Your task to perform on an android device: Open Wikipedia Image 0: 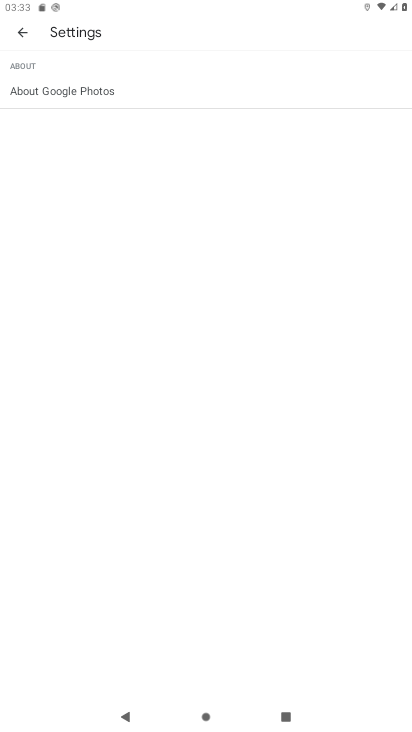
Step 0: press home button
Your task to perform on an android device: Open Wikipedia Image 1: 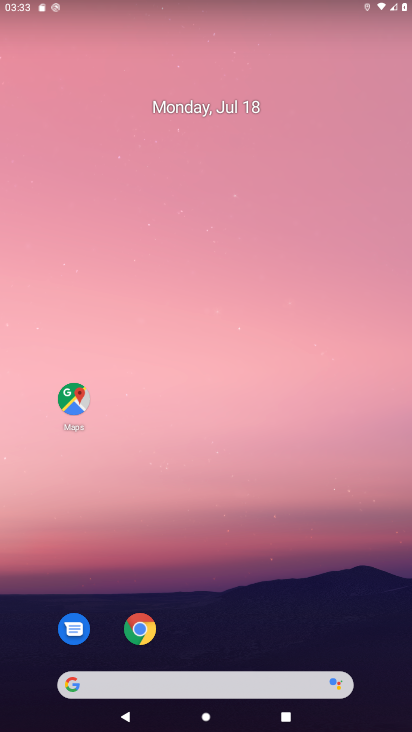
Step 1: drag from (346, 576) to (367, 118)
Your task to perform on an android device: Open Wikipedia Image 2: 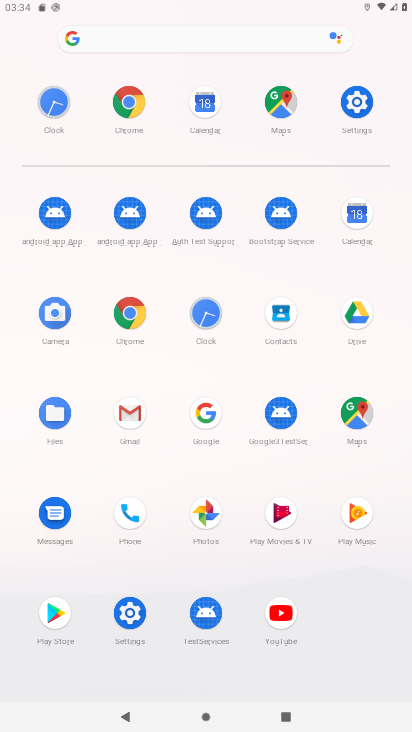
Step 2: click (137, 313)
Your task to perform on an android device: Open Wikipedia Image 3: 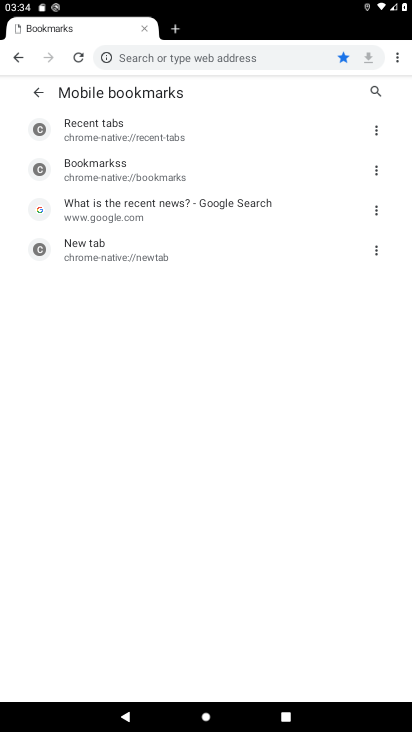
Step 3: click (229, 58)
Your task to perform on an android device: Open Wikipedia Image 4: 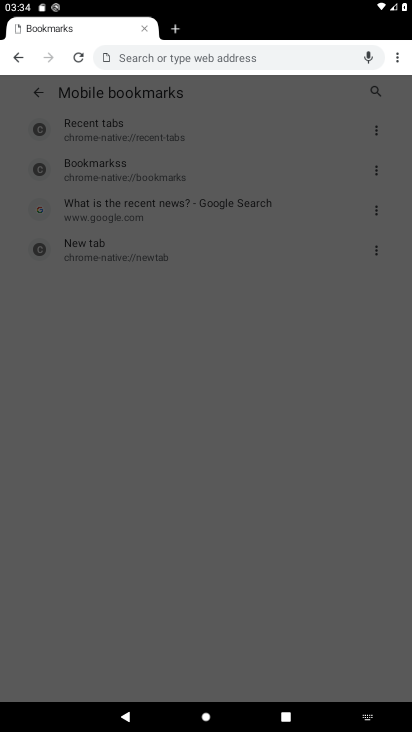
Step 4: type "wikipedia"
Your task to perform on an android device: Open Wikipedia Image 5: 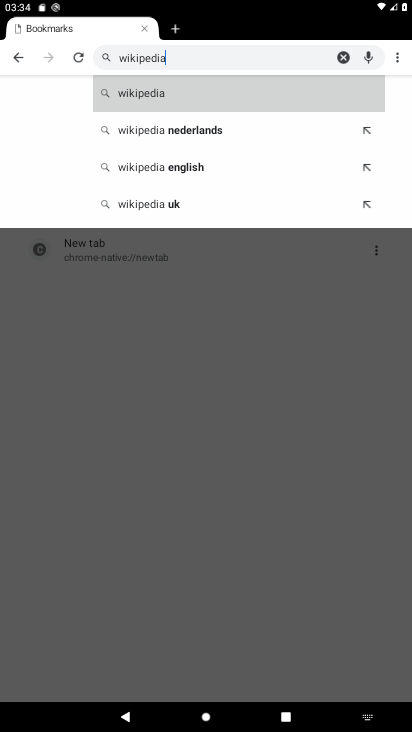
Step 5: click (236, 88)
Your task to perform on an android device: Open Wikipedia Image 6: 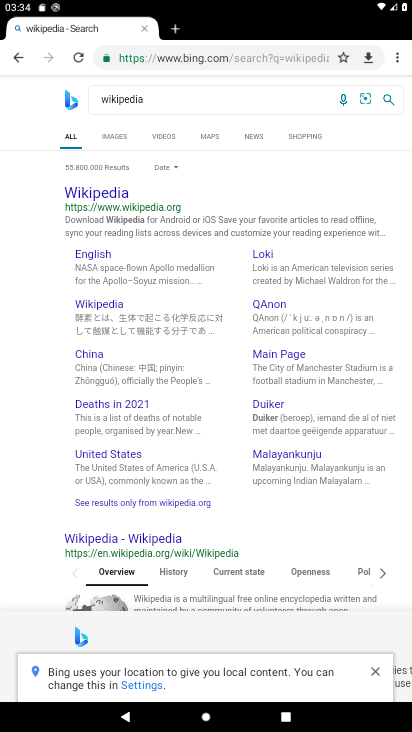
Step 6: task complete